Your task to perform on an android device: turn off notifications settings in the gmail app Image 0: 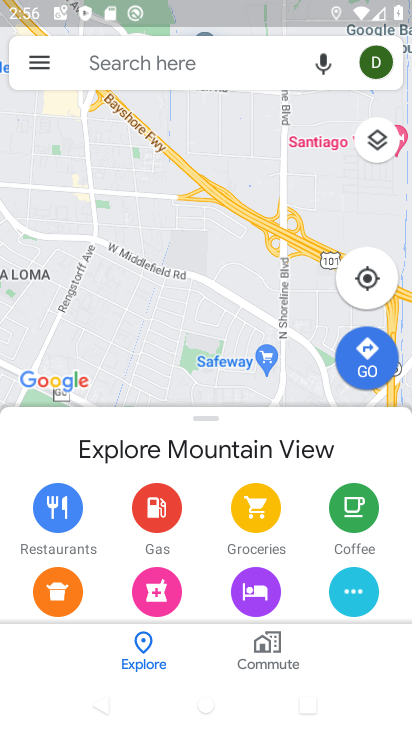
Step 0: press home button
Your task to perform on an android device: turn off notifications settings in the gmail app Image 1: 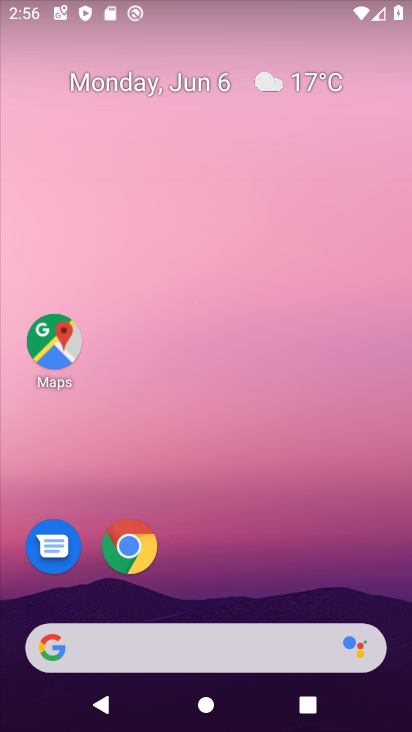
Step 1: drag from (281, 591) to (293, 110)
Your task to perform on an android device: turn off notifications settings in the gmail app Image 2: 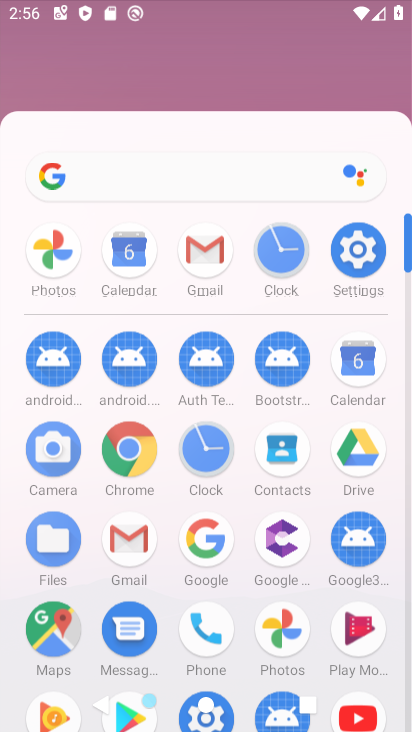
Step 2: click (293, 110)
Your task to perform on an android device: turn off notifications settings in the gmail app Image 3: 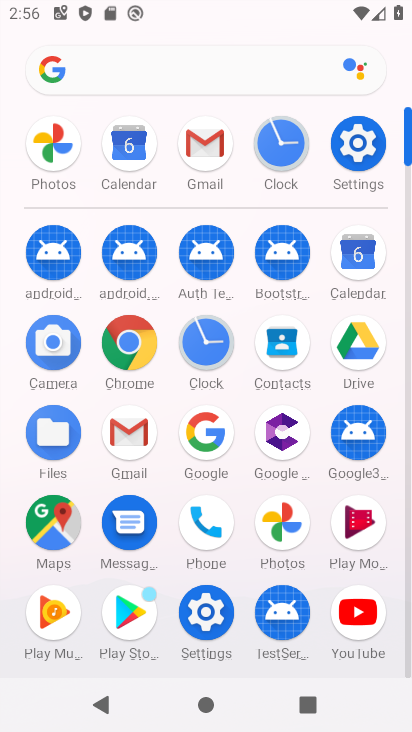
Step 3: click (203, 180)
Your task to perform on an android device: turn off notifications settings in the gmail app Image 4: 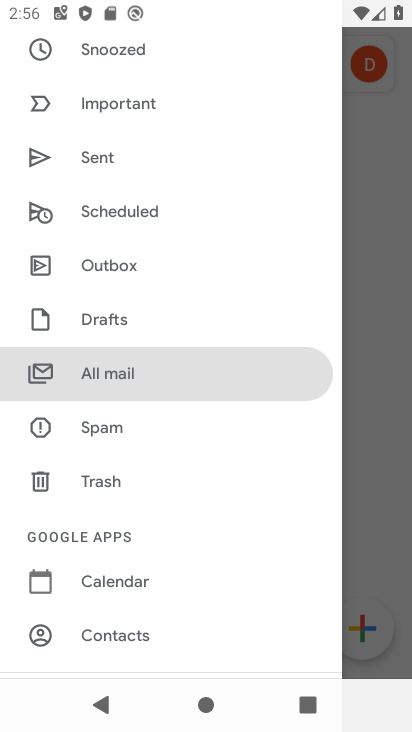
Step 4: task complete